Your task to perform on an android device: Go to Yahoo.com Image 0: 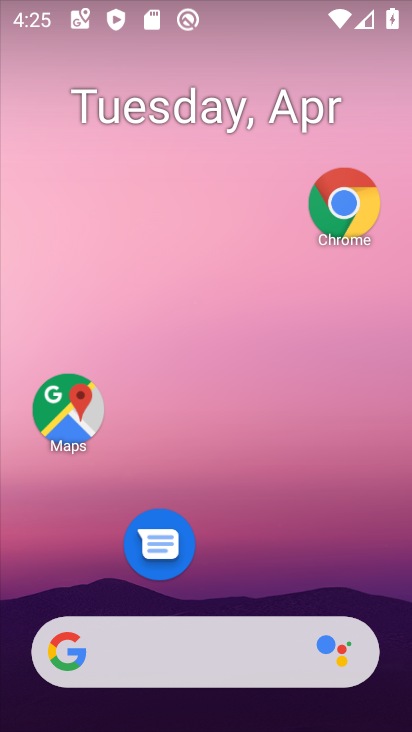
Step 0: click (372, 189)
Your task to perform on an android device: Go to Yahoo.com Image 1: 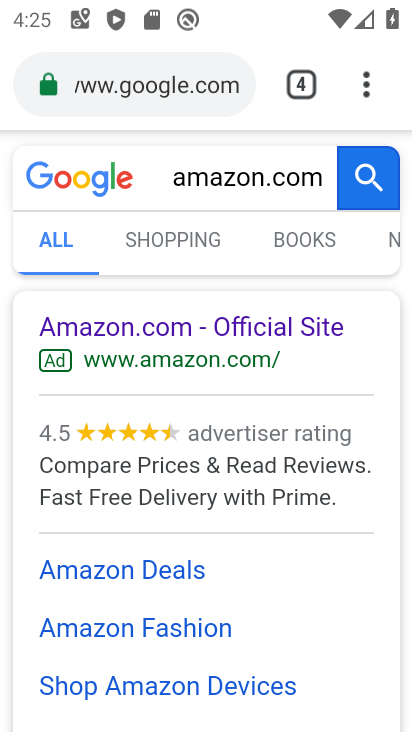
Step 1: click (359, 93)
Your task to perform on an android device: Go to Yahoo.com Image 2: 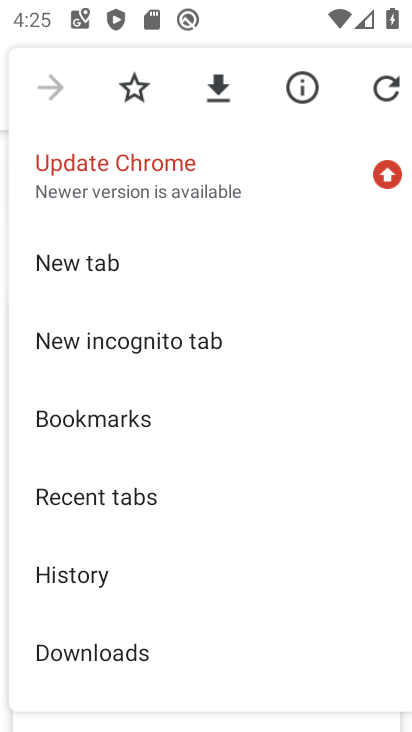
Step 2: click (74, 277)
Your task to perform on an android device: Go to Yahoo.com Image 3: 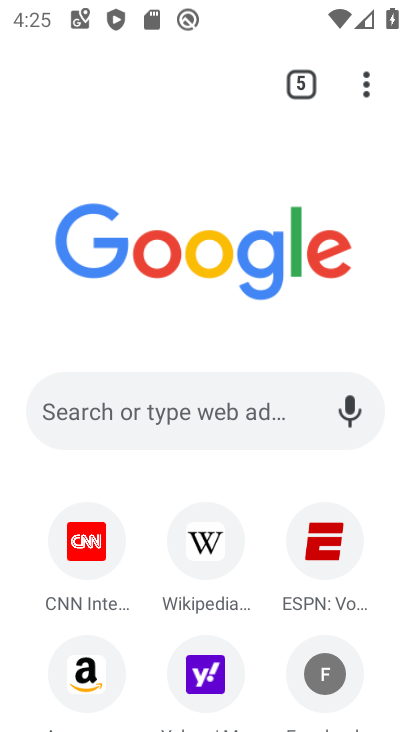
Step 3: click (219, 681)
Your task to perform on an android device: Go to Yahoo.com Image 4: 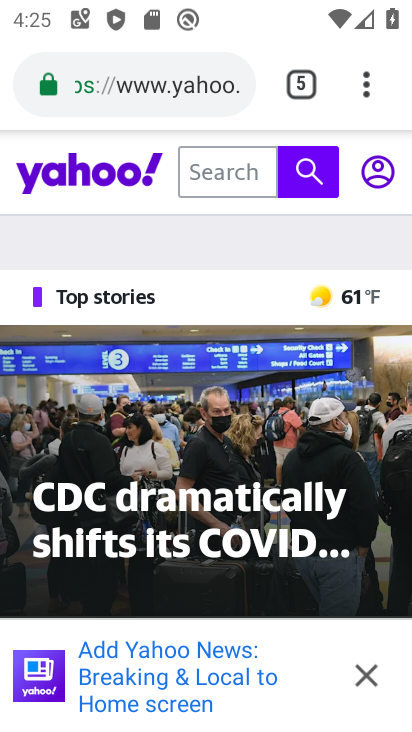
Step 4: task complete